Your task to perform on an android device: turn off improve location accuracy Image 0: 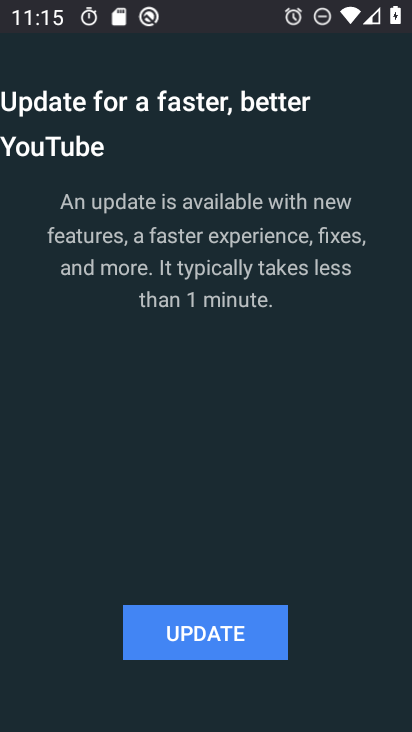
Step 0: press home button
Your task to perform on an android device: turn off improve location accuracy Image 1: 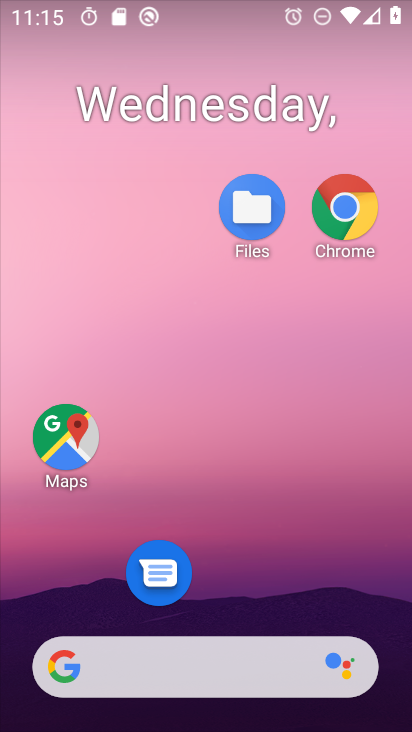
Step 1: drag from (264, 636) to (333, 270)
Your task to perform on an android device: turn off improve location accuracy Image 2: 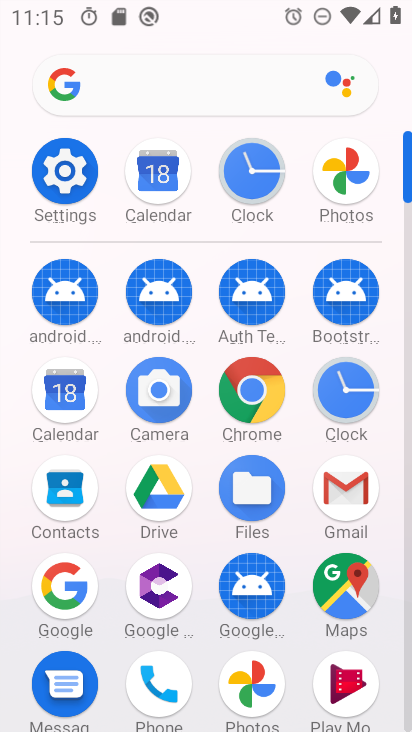
Step 2: click (65, 189)
Your task to perform on an android device: turn off improve location accuracy Image 3: 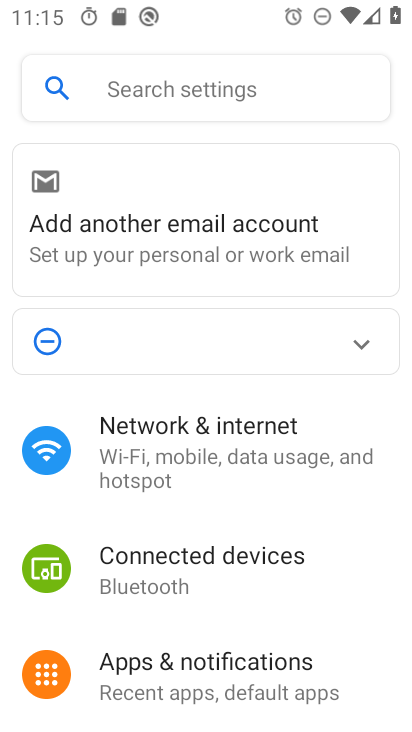
Step 3: drag from (157, 648) to (192, 201)
Your task to perform on an android device: turn off improve location accuracy Image 4: 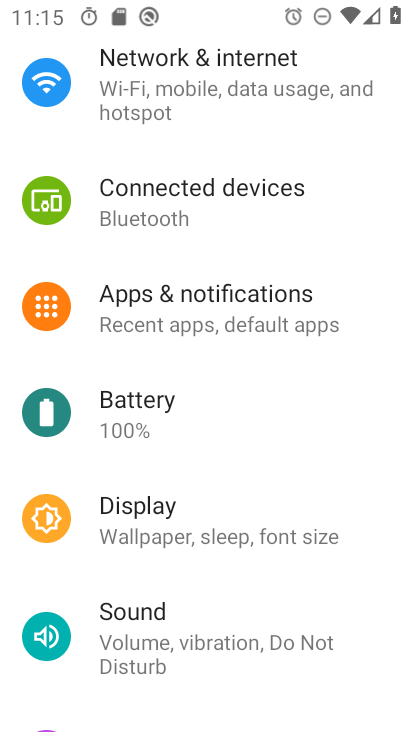
Step 4: drag from (112, 540) to (136, 402)
Your task to perform on an android device: turn off improve location accuracy Image 5: 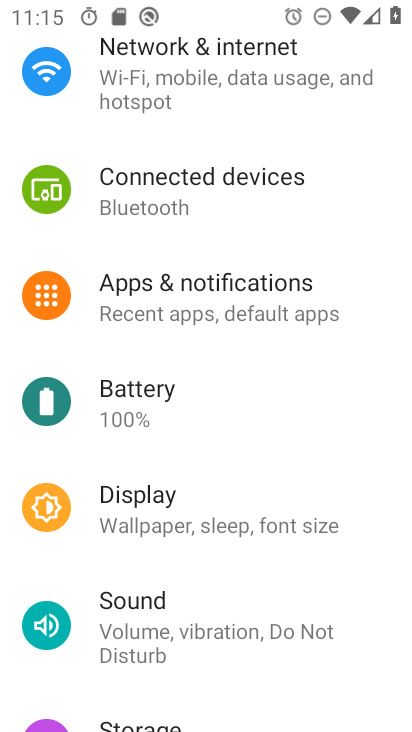
Step 5: drag from (157, 634) to (202, 361)
Your task to perform on an android device: turn off improve location accuracy Image 6: 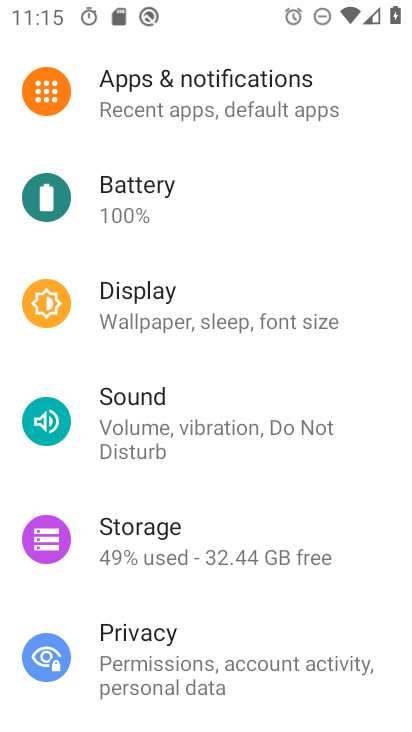
Step 6: drag from (148, 629) to (220, 93)
Your task to perform on an android device: turn off improve location accuracy Image 7: 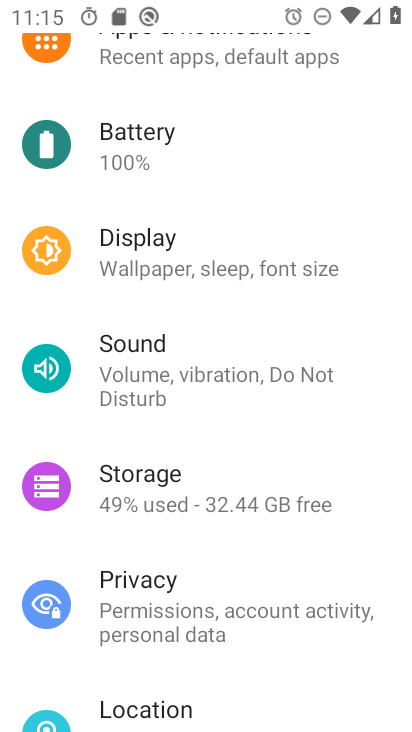
Step 7: drag from (144, 652) to (199, 296)
Your task to perform on an android device: turn off improve location accuracy Image 8: 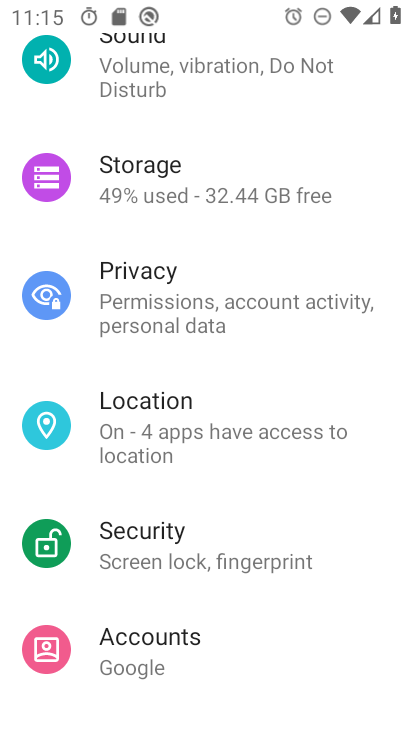
Step 8: click (243, 421)
Your task to perform on an android device: turn off improve location accuracy Image 9: 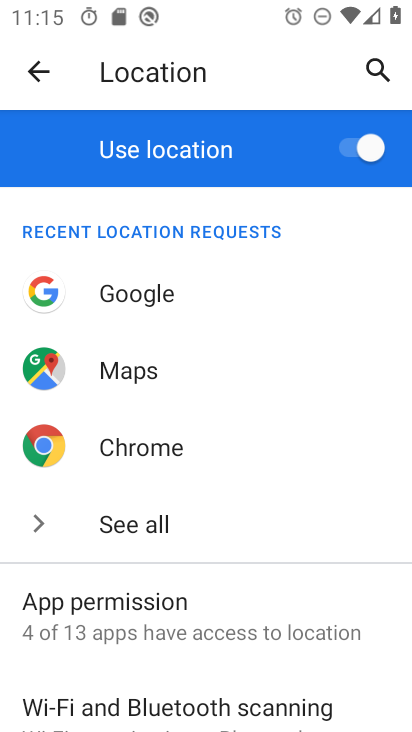
Step 9: drag from (163, 644) to (160, 276)
Your task to perform on an android device: turn off improve location accuracy Image 10: 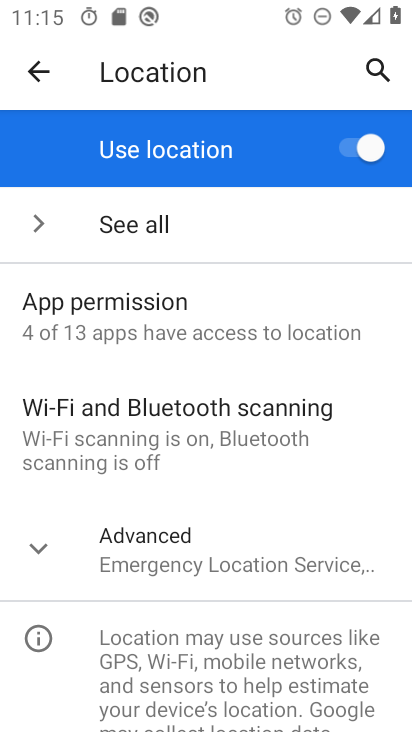
Step 10: click (220, 567)
Your task to perform on an android device: turn off improve location accuracy Image 11: 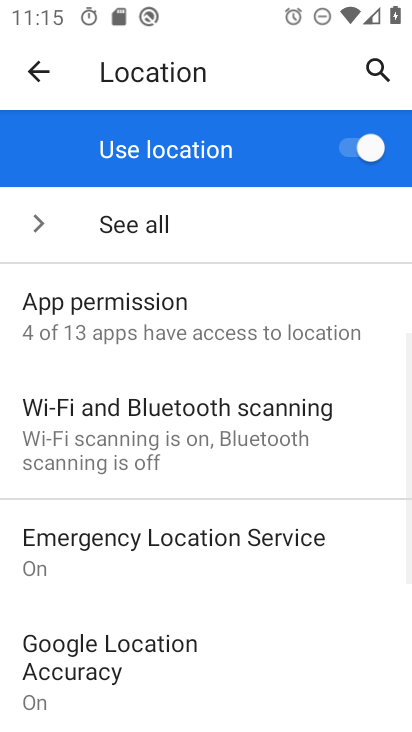
Step 11: drag from (213, 652) to (233, 463)
Your task to perform on an android device: turn off improve location accuracy Image 12: 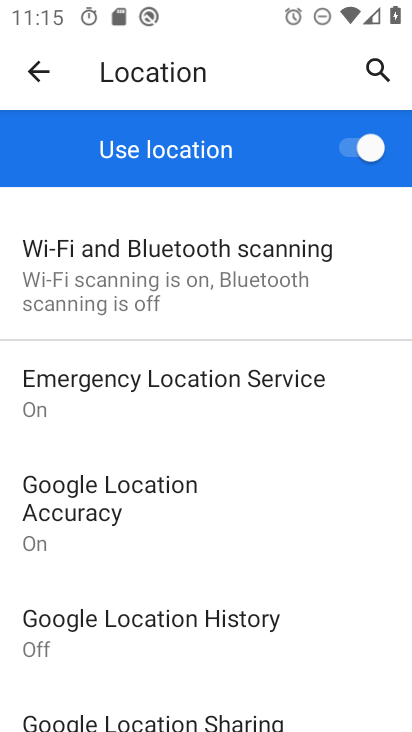
Step 12: click (151, 502)
Your task to perform on an android device: turn off improve location accuracy Image 13: 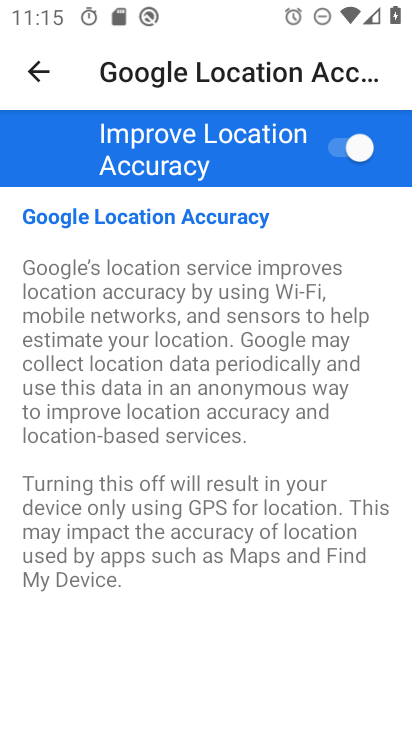
Step 13: click (319, 148)
Your task to perform on an android device: turn off improve location accuracy Image 14: 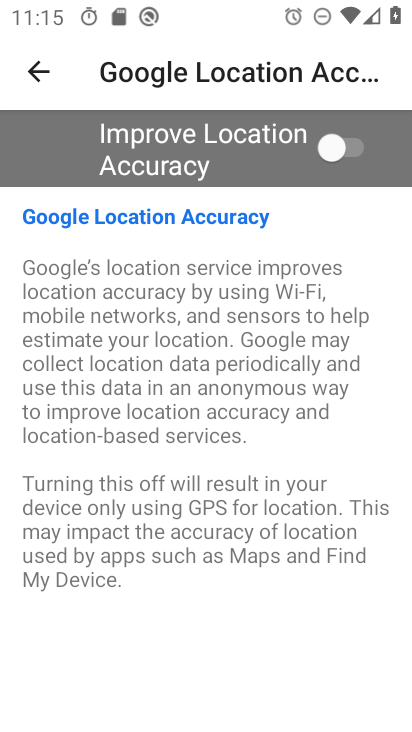
Step 14: task complete